Your task to perform on an android device: Open battery settings Image 0: 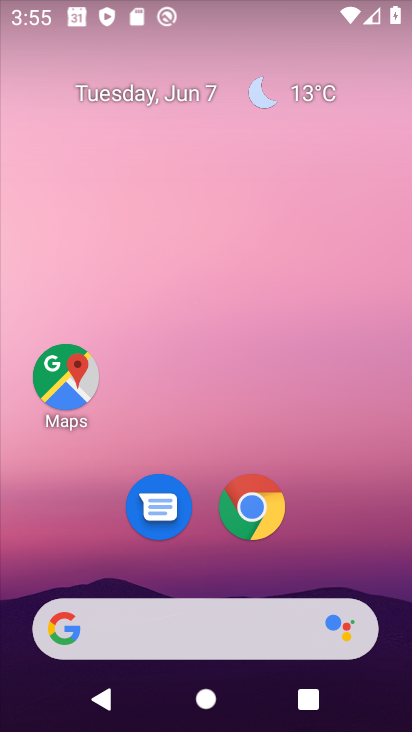
Step 0: drag from (322, 537) to (234, 37)
Your task to perform on an android device: Open battery settings Image 1: 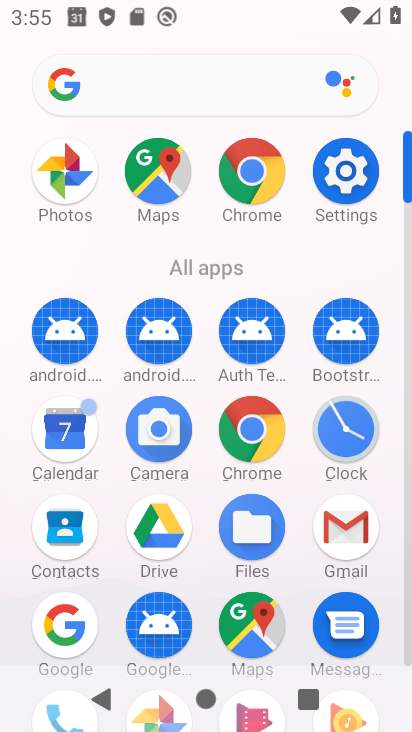
Step 1: drag from (2, 543) to (3, 116)
Your task to perform on an android device: Open battery settings Image 2: 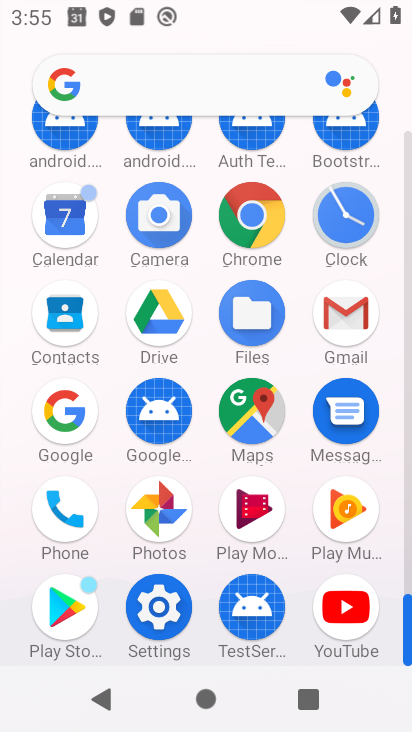
Step 2: click (161, 605)
Your task to perform on an android device: Open battery settings Image 3: 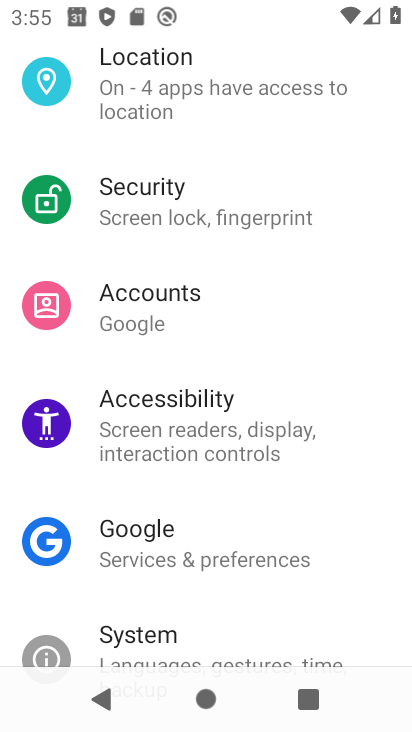
Step 3: drag from (270, 132) to (248, 564)
Your task to perform on an android device: Open battery settings Image 4: 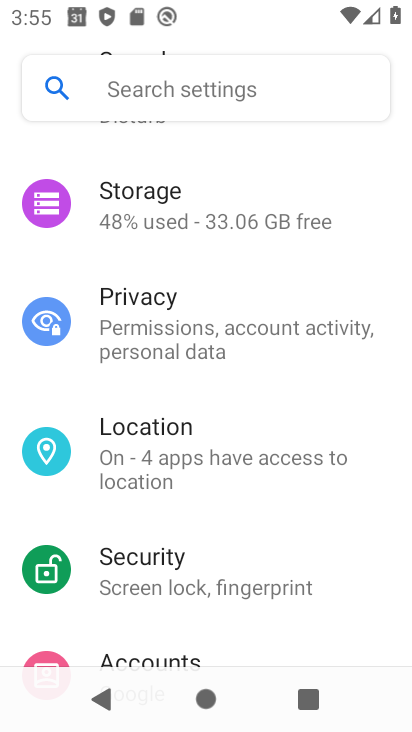
Step 4: drag from (277, 547) to (301, 162)
Your task to perform on an android device: Open battery settings Image 5: 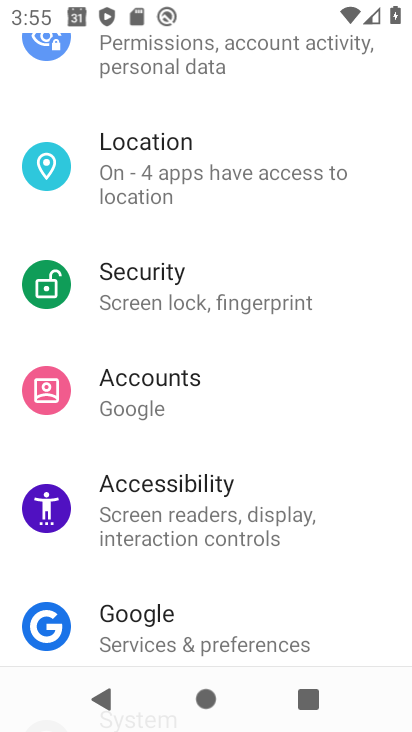
Step 5: drag from (258, 570) to (263, 88)
Your task to perform on an android device: Open battery settings Image 6: 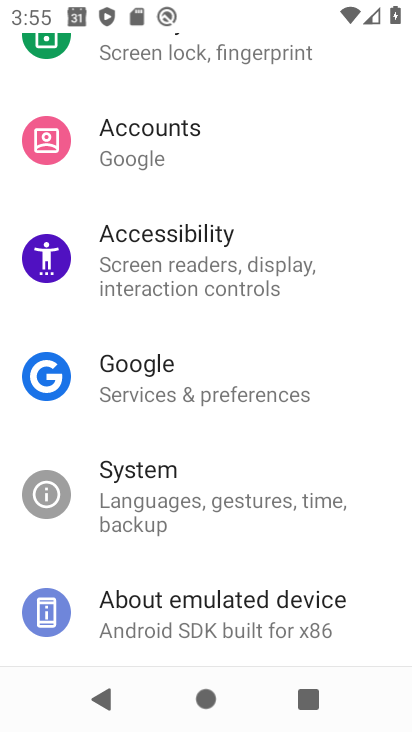
Step 6: drag from (232, 511) to (268, 111)
Your task to perform on an android device: Open battery settings Image 7: 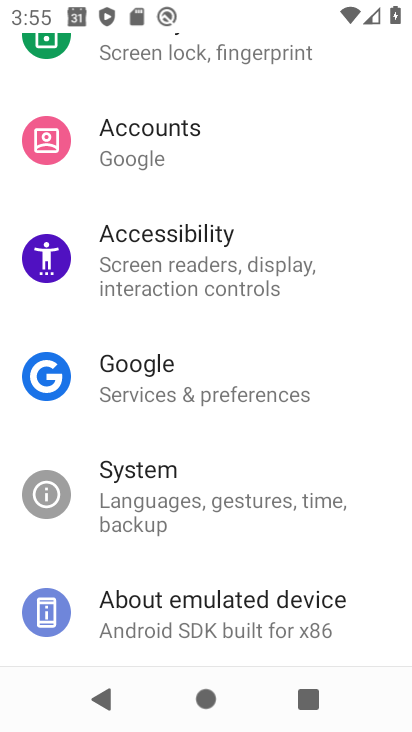
Step 7: drag from (243, 200) to (245, 605)
Your task to perform on an android device: Open battery settings Image 8: 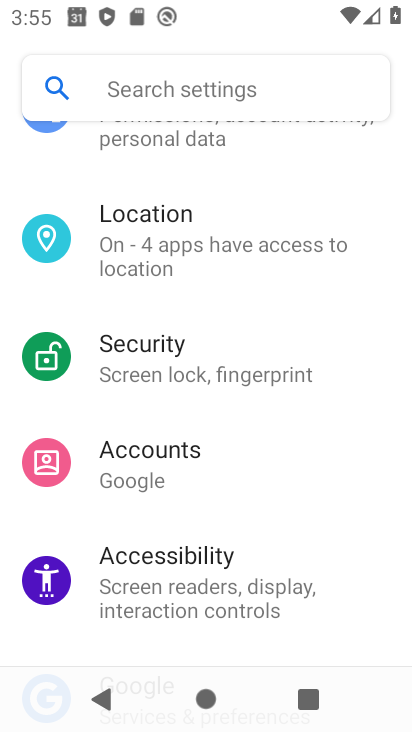
Step 8: drag from (288, 236) to (300, 640)
Your task to perform on an android device: Open battery settings Image 9: 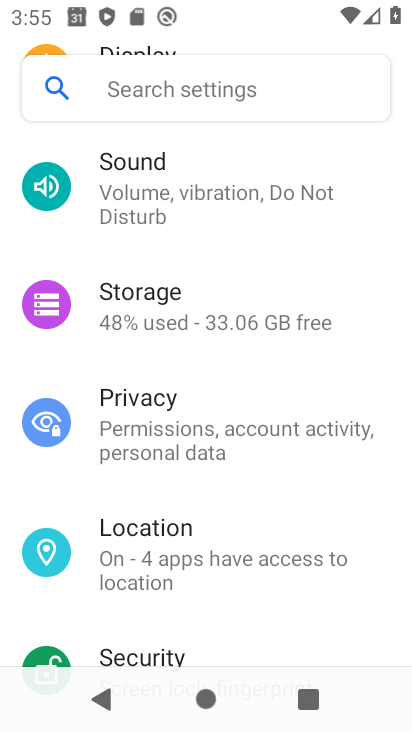
Step 9: drag from (262, 229) to (262, 605)
Your task to perform on an android device: Open battery settings Image 10: 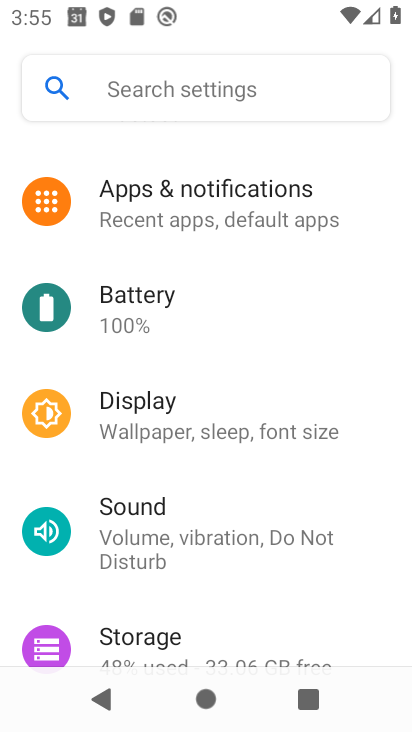
Step 10: click (191, 295)
Your task to perform on an android device: Open battery settings Image 11: 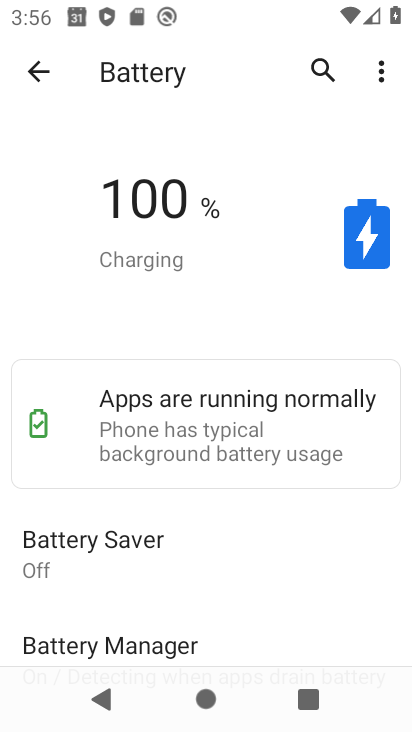
Step 11: task complete